Your task to perform on an android device: visit the assistant section in the google photos Image 0: 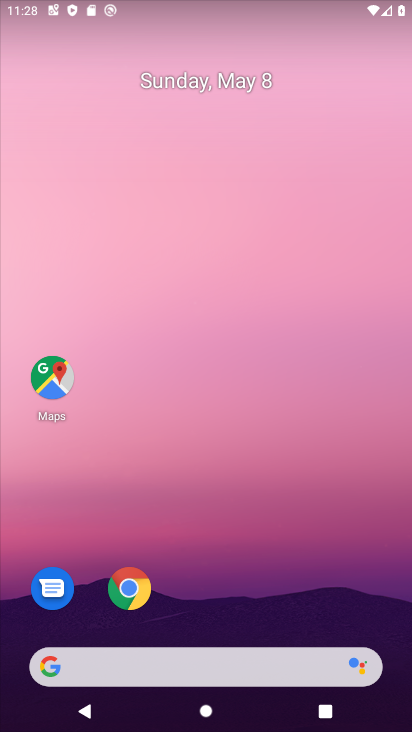
Step 0: drag from (238, 559) to (127, 22)
Your task to perform on an android device: visit the assistant section in the google photos Image 1: 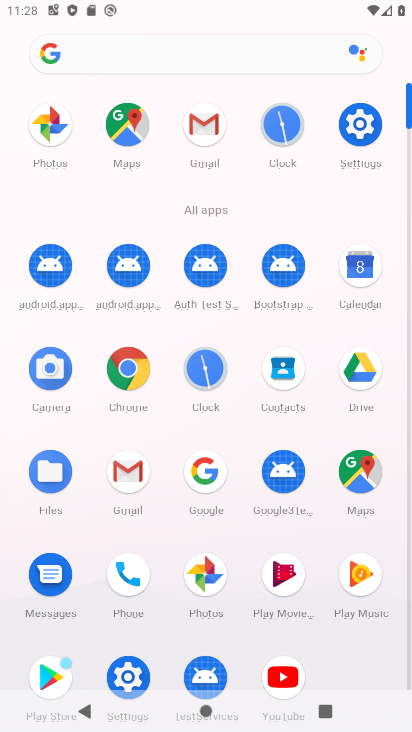
Step 1: click (47, 125)
Your task to perform on an android device: visit the assistant section in the google photos Image 2: 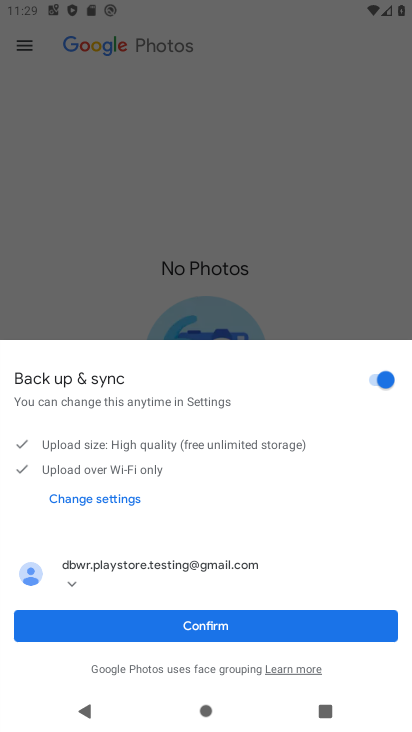
Step 2: click (215, 625)
Your task to perform on an android device: visit the assistant section in the google photos Image 3: 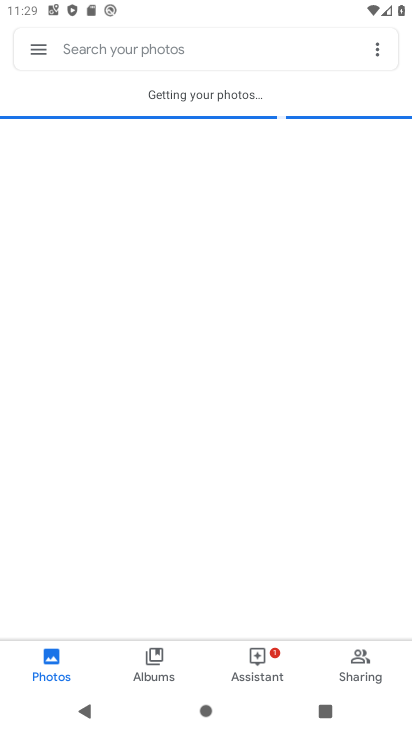
Step 3: click (252, 653)
Your task to perform on an android device: visit the assistant section in the google photos Image 4: 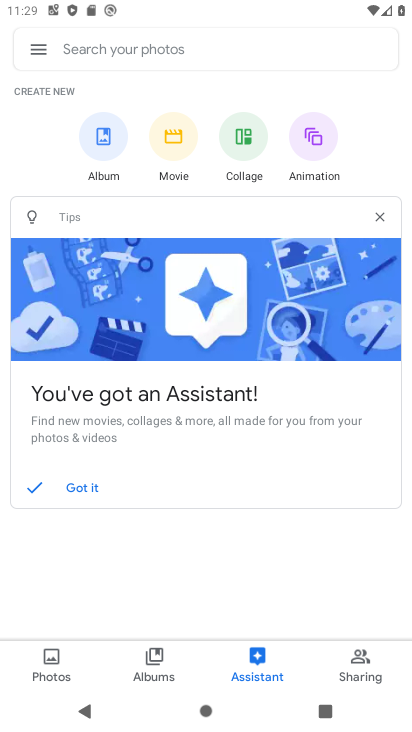
Step 4: task complete